Your task to perform on an android device: set default search engine in the chrome app Image 0: 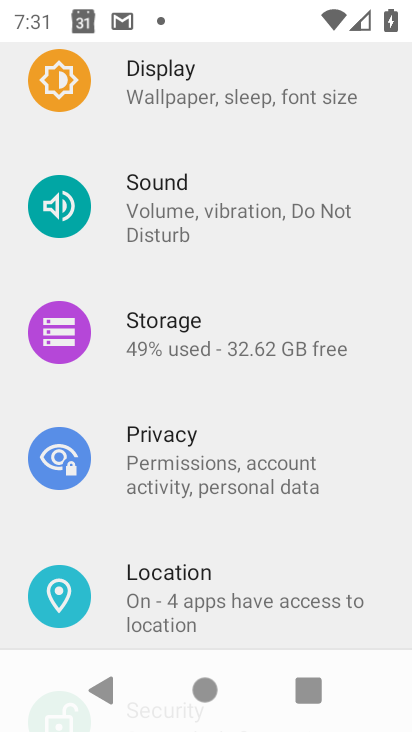
Step 0: press home button
Your task to perform on an android device: set default search engine in the chrome app Image 1: 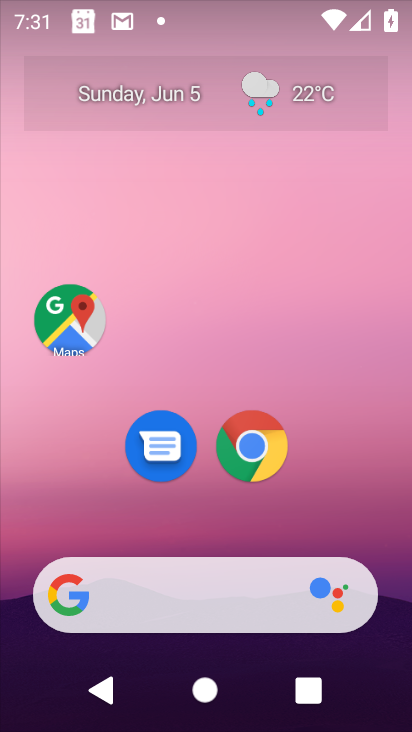
Step 1: click (249, 445)
Your task to perform on an android device: set default search engine in the chrome app Image 2: 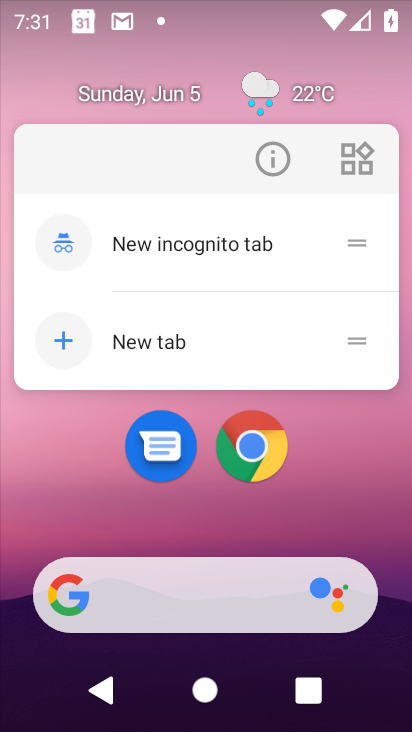
Step 2: click (269, 159)
Your task to perform on an android device: set default search engine in the chrome app Image 3: 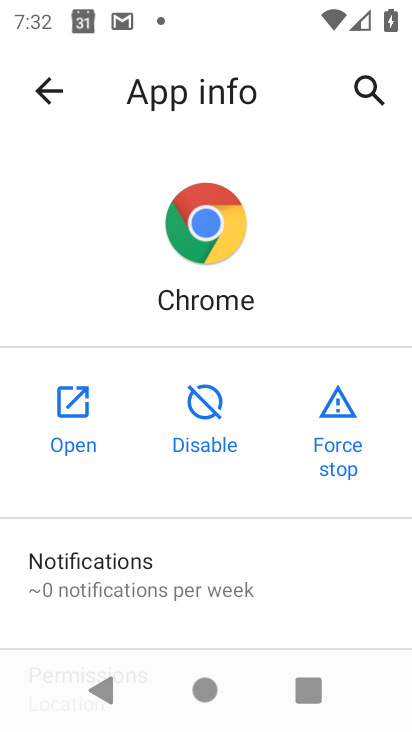
Step 3: click (87, 398)
Your task to perform on an android device: set default search engine in the chrome app Image 4: 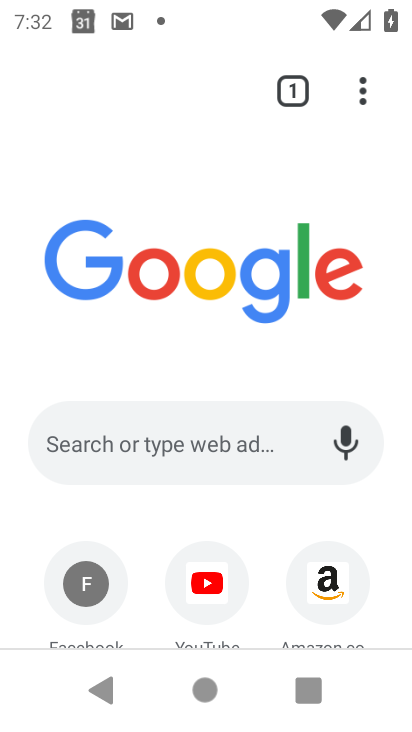
Step 4: click (364, 86)
Your task to perform on an android device: set default search engine in the chrome app Image 5: 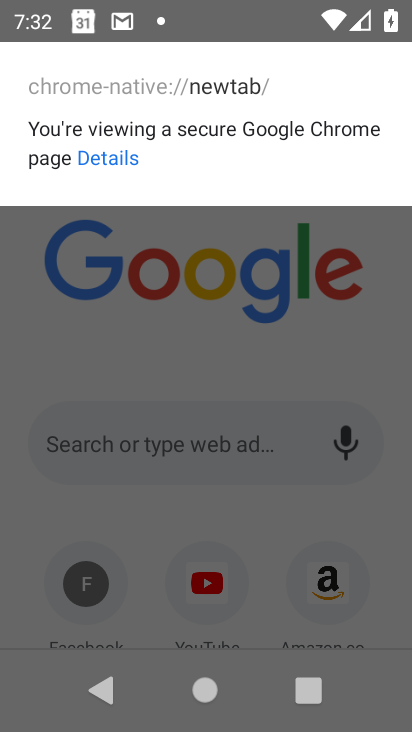
Step 5: click (197, 235)
Your task to perform on an android device: set default search engine in the chrome app Image 6: 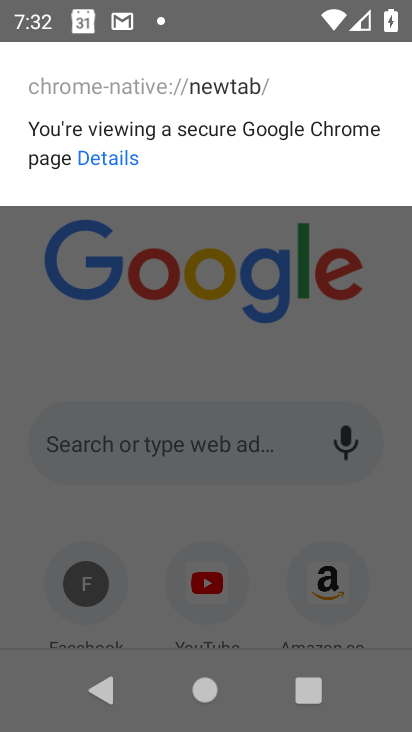
Step 6: press back button
Your task to perform on an android device: set default search engine in the chrome app Image 7: 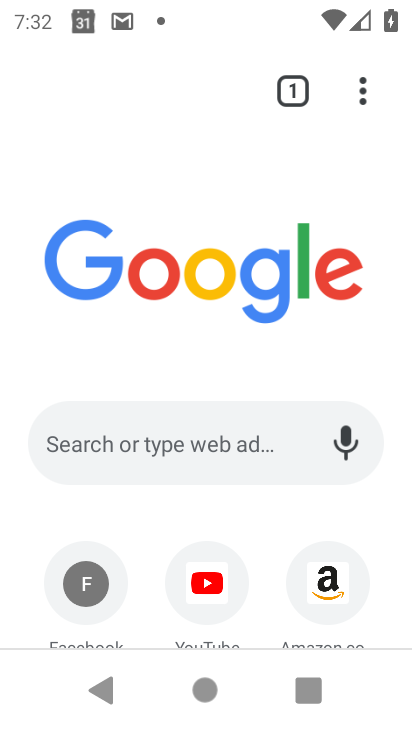
Step 7: click (366, 86)
Your task to perform on an android device: set default search engine in the chrome app Image 8: 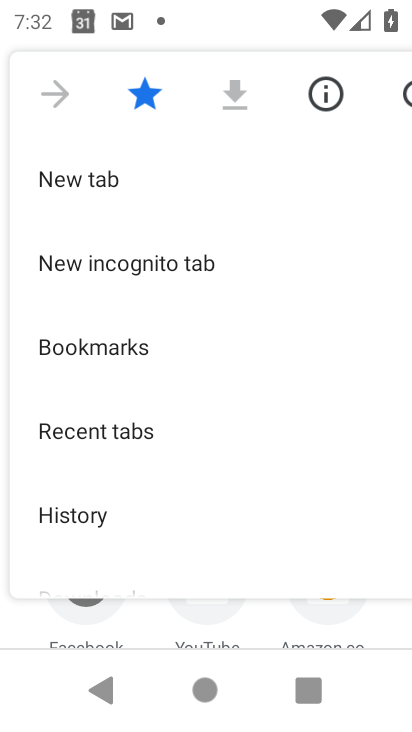
Step 8: drag from (173, 436) to (286, 79)
Your task to perform on an android device: set default search engine in the chrome app Image 9: 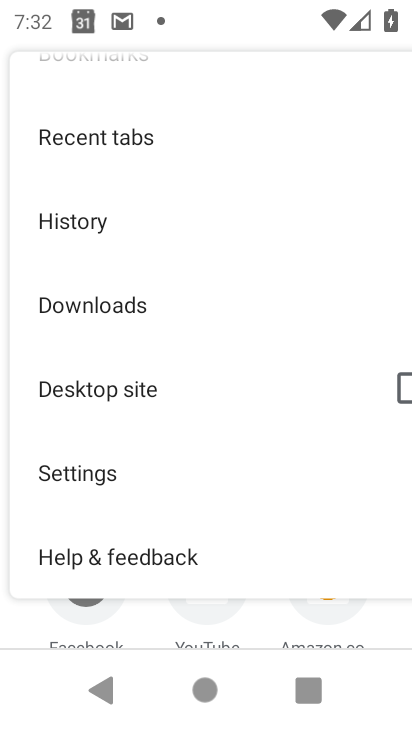
Step 9: click (129, 472)
Your task to perform on an android device: set default search engine in the chrome app Image 10: 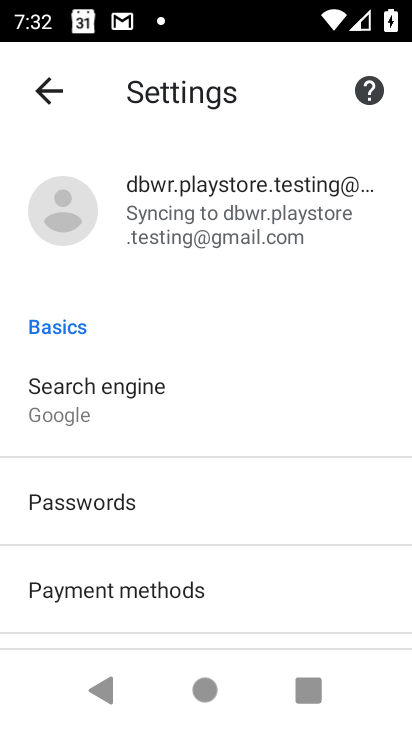
Step 10: drag from (111, 545) to (157, 225)
Your task to perform on an android device: set default search engine in the chrome app Image 11: 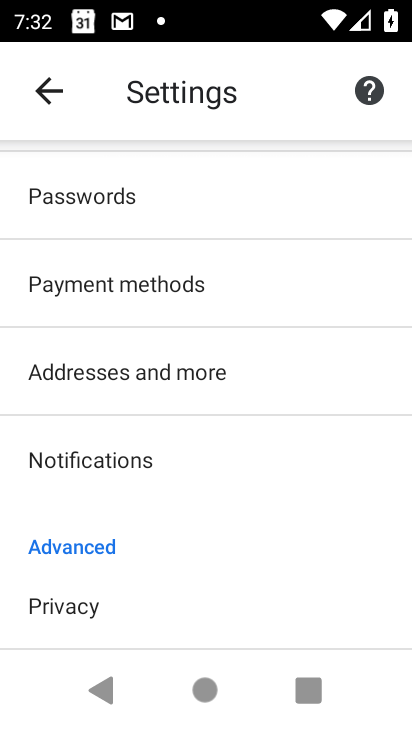
Step 11: drag from (168, 456) to (154, 670)
Your task to perform on an android device: set default search engine in the chrome app Image 12: 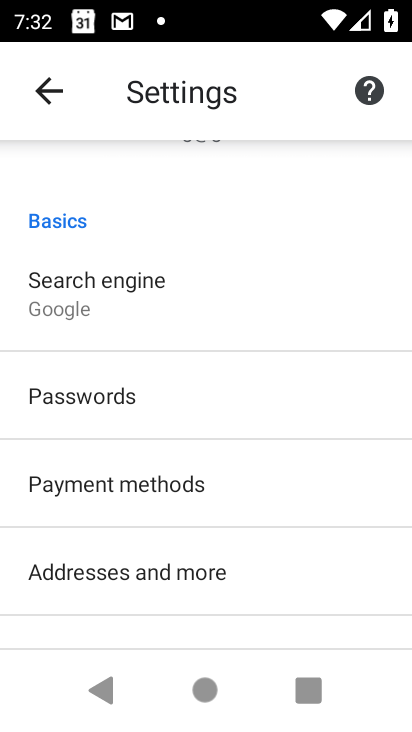
Step 12: click (98, 293)
Your task to perform on an android device: set default search engine in the chrome app Image 13: 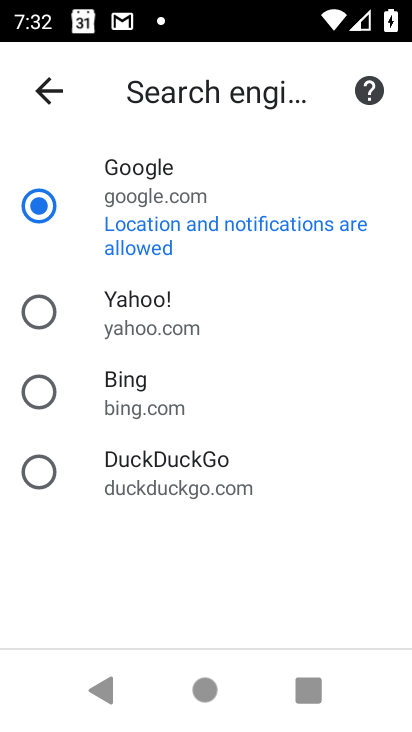
Step 13: task complete